Your task to perform on an android device: delete a single message in the gmail app Image 0: 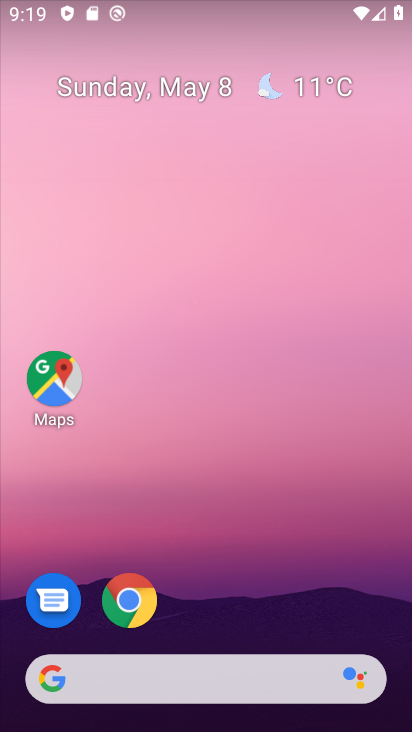
Step 0: drag from (248, 572) to (264, 10)
Your task to perform on an android device: delete a single message in the gmail app Image 1: 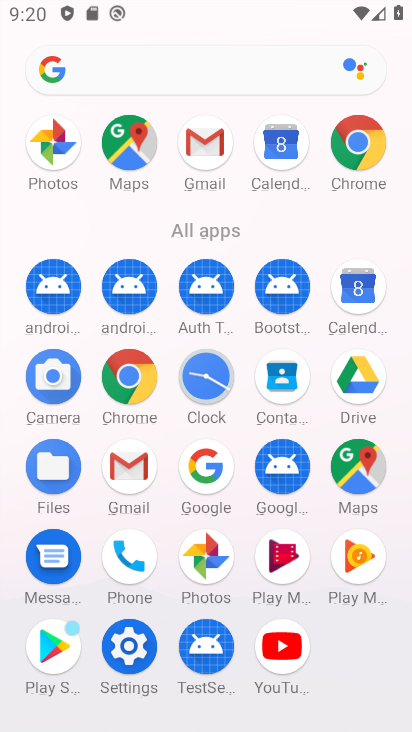
Step 1: click (125, 462)
Your task to perform on an android device: delete a single message in the gmail app Image 2: 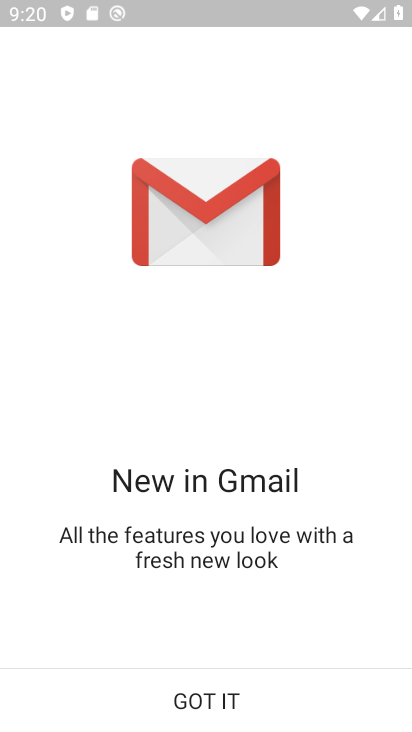
Step 2: click (214, 686)
Your task to perform on an android device: delete a single message in the gmail app Image 3: 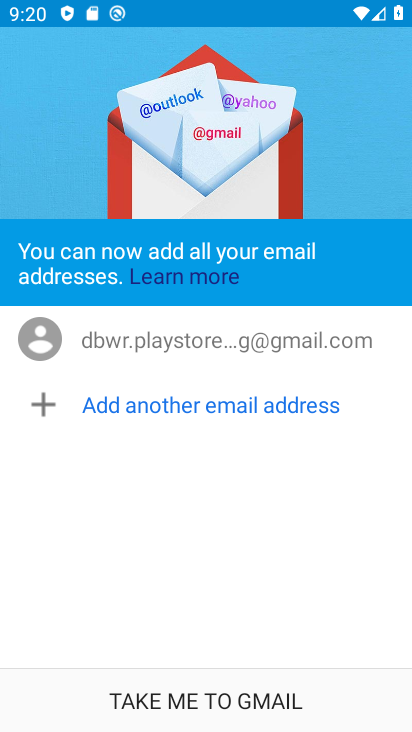
Step 3: click (214, 686)
Your task to perform on an android device: delete a single message in the gmail app Image 4: 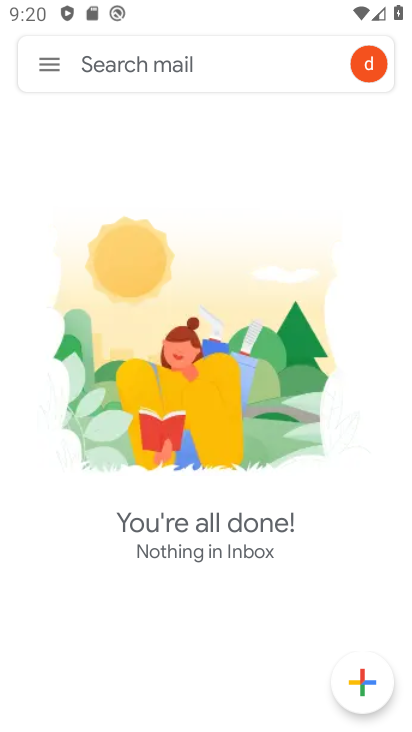
Step 4: click (41, 62)
Your task to perform on an android device: delete a single message in the gmail app Image 5: 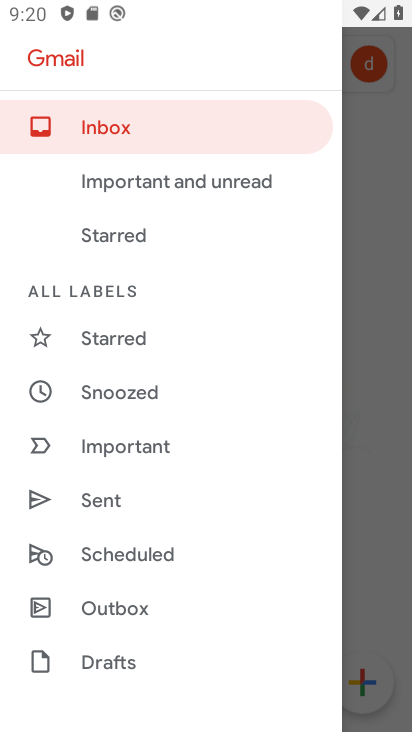
Step 5: drag from (222, 603) to (238, 113)
Your task to perform on an android device: delete a single message in the gmail app Image 6: 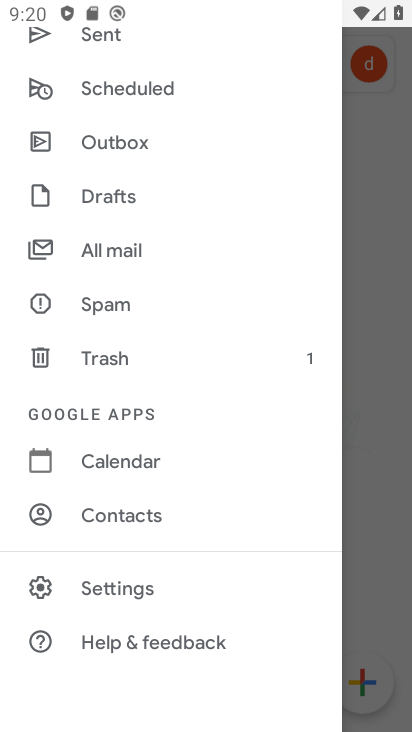
Step 6: click (158, 242)
Your task to perform on an android device: delete a single message in the gmail app Image 7: 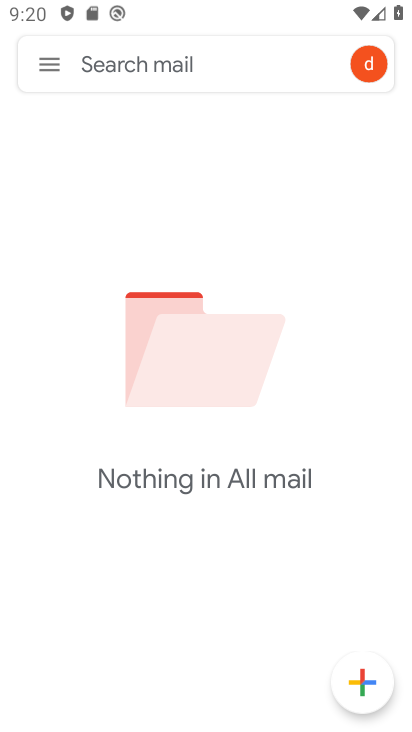
Step 7: click (55, 64)
Your task to perform on an android device: delete a single message in the gmail app Image 8: 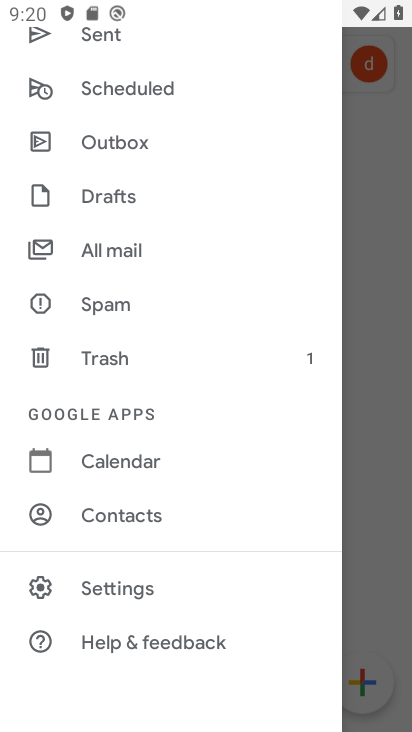
Step 8: click (146, 347)
Your task to perform on an android device: delete a single message in the gmail app Image 9: 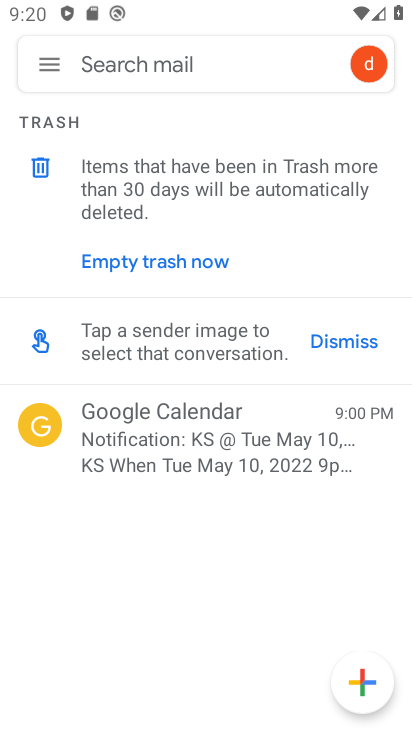
Step 9: click (177, 445)
Your task to perform on an android device: delete a single message in the gmail app Image 10: 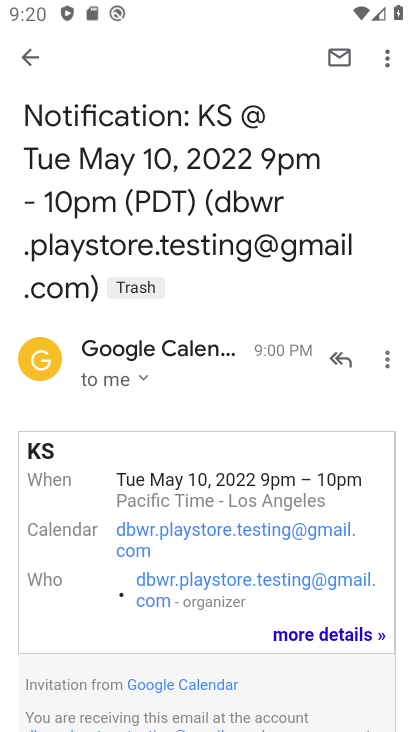
Step 10: click (383, 66)
Your task to perform on an android device: delete a single message in the gmail app Image 11: 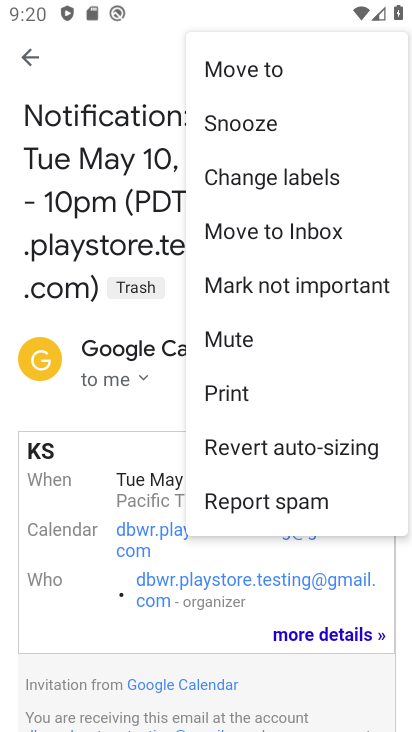
Step 11: click (122, 33)
Your task to perform on an android device: delete a single message in the gmail app Image 12: 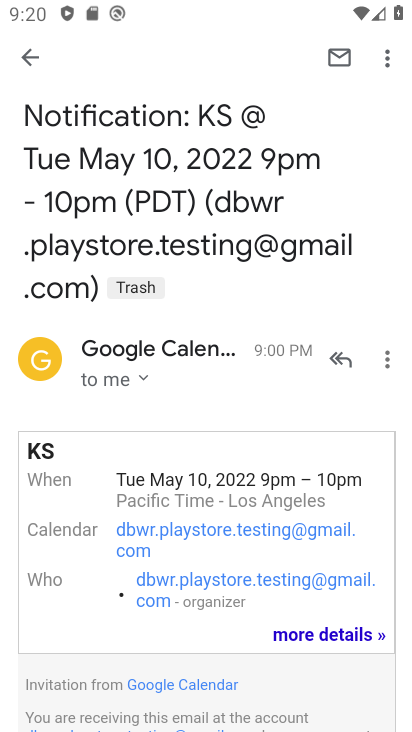
Step 12: click (383, 361)
Your task to perform on an android device: delete a single message in the gmail app Image 13: 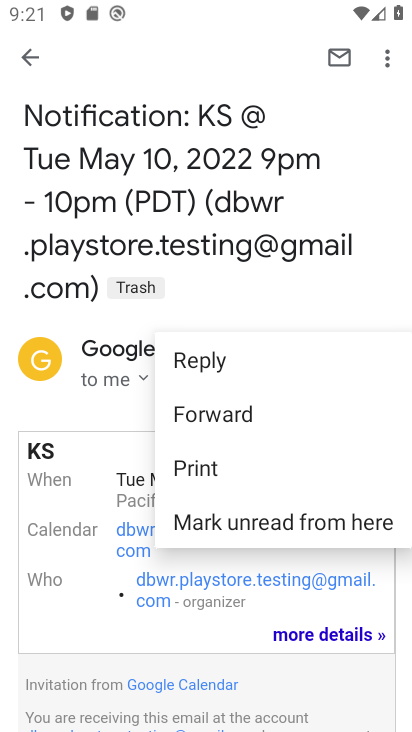
Step 13: click (304, 294)
Your task to perform on an android device: delete a single message in the gmail app Image 14: 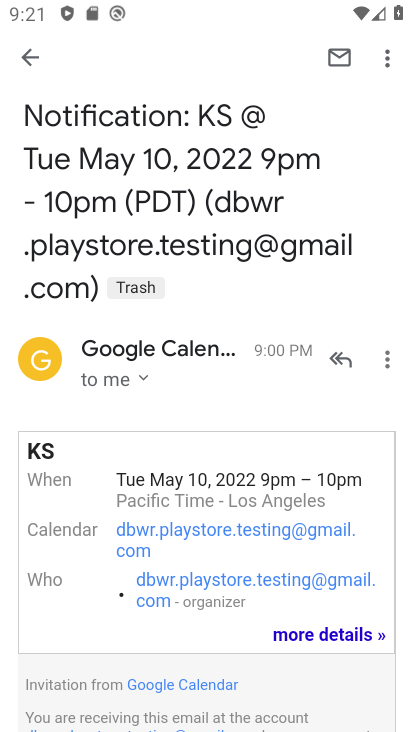
Step 14: click (137, 287)
Your task to perform on an android device: delete a single message in the gmail app Image 15: 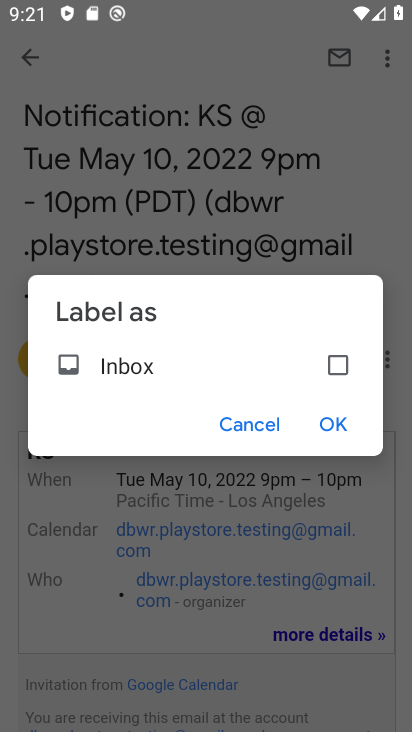
Step 15: click (330, 364)
Your task to perform on an android device: delete a single message in the gmail app Image 16: 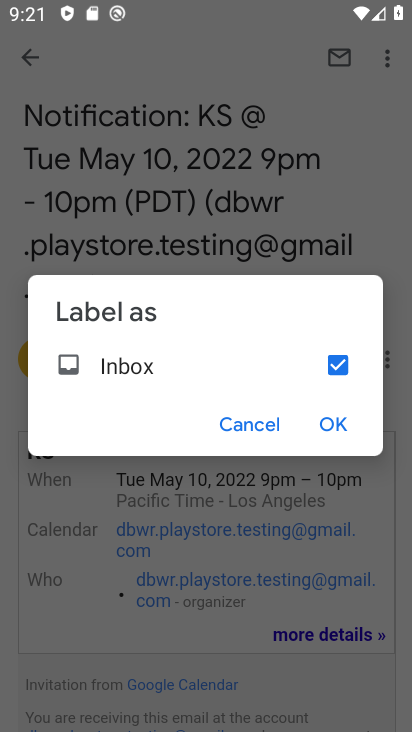
Step 16: click (337, 425)
Your task to perform on an android device: delete a single message in the gmail app Image 17: 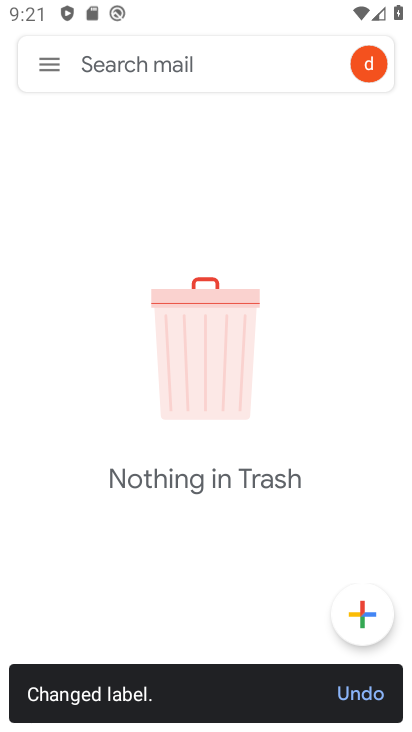
Step 17: click (51, 80)
Your task to perform on an android device: delete a single message in the gmail app Image 18: 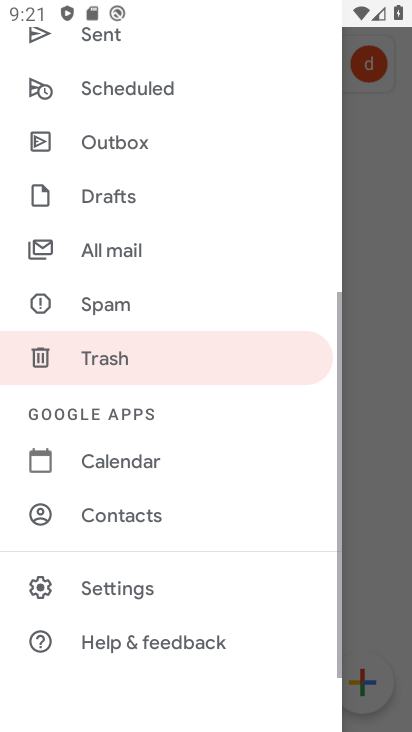
Step 18: click (50, 59)
Your task to perform on an android device: delete a single message in the gmail app Image 19: 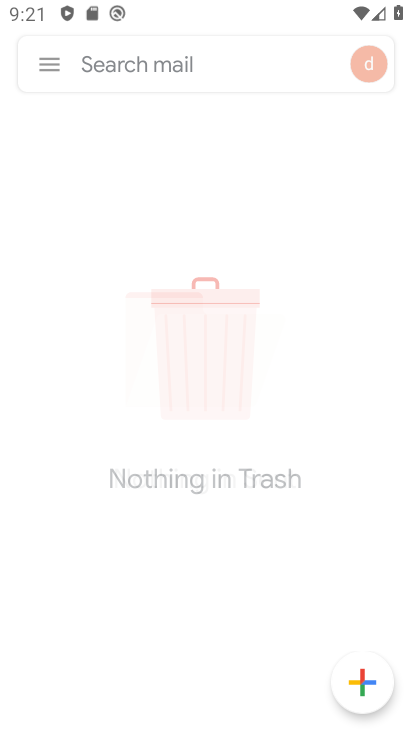
Step 19: drag from (181, 101) to (198, 218)
Your task to perform on an android device: delete a single message in the gmail app Image 20: 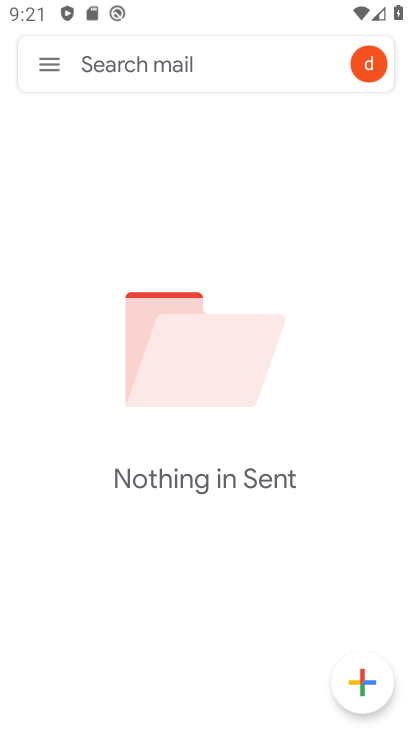
Step 20: click (59, 58)
Your task to perform on an android device: delete a single message in the gmail app Image 21: 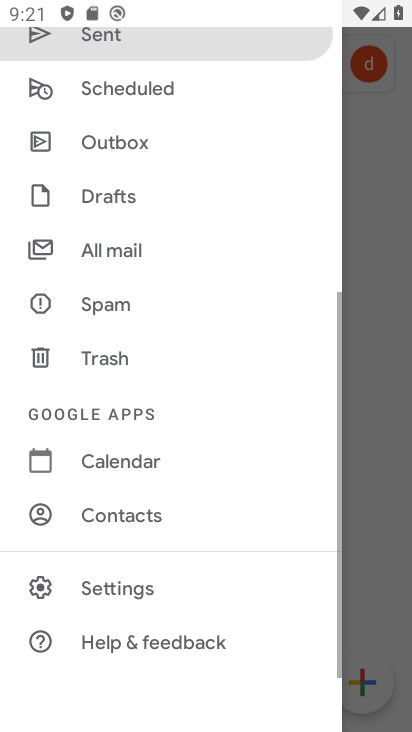
Step 21: drag from (224, 169) to (240, 570)
Your task to perform on an android device: delete a single message in the gmail app Image 22: 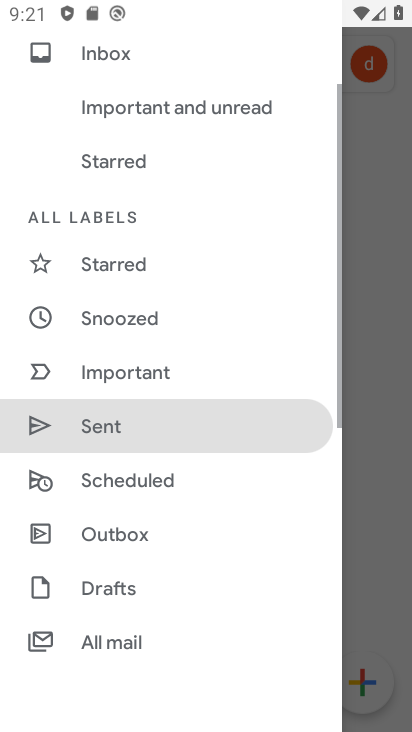
Step 22: drag from (216, 100) to (214, 630)
Your task to perform on an android device: delete a single message in the gmail app Image 23: 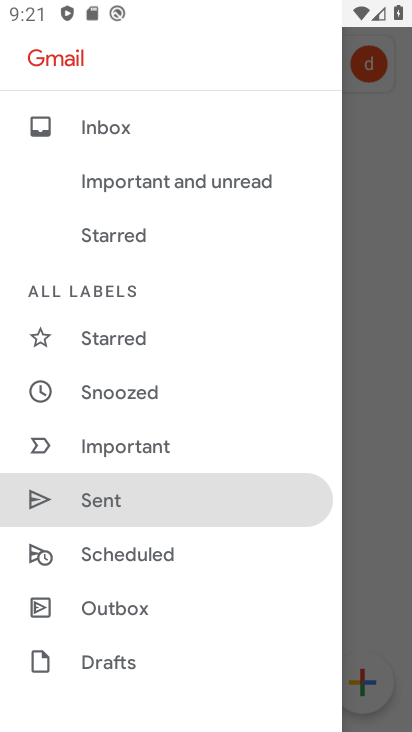
Step 23: click (141, 132)
Your task to perform on an android device: delete a single message in the gmail app Image 24: 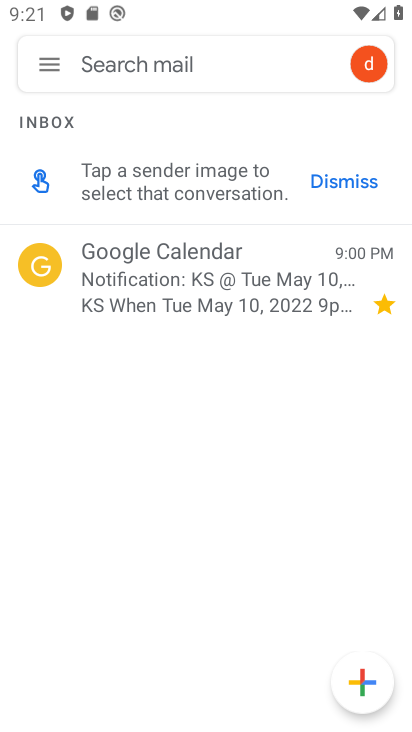
Step 24: click (167, 271)
Your task to perform on an android device: delete a single message in the gmail app Image 25: 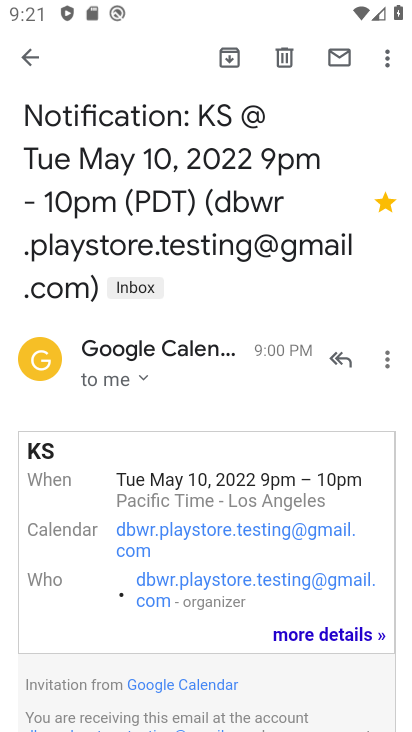
Step 25: click (280, 52)
Your task to perform on an android device: delete a single message in the gmail app Image 26: 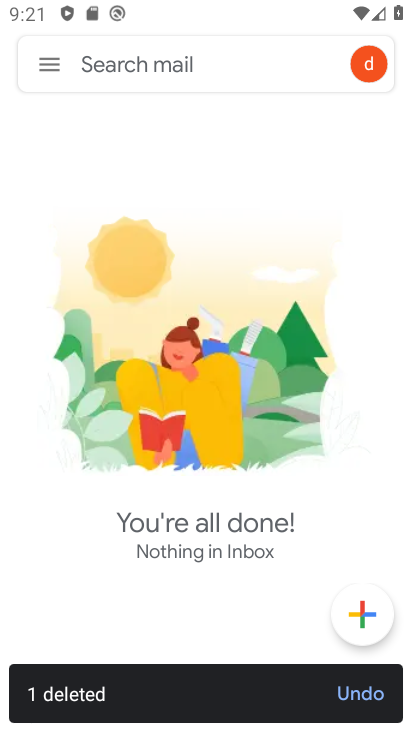
Step 26: task complete